Your task to perform on an android device: open app "Expedia: Hotels, Flights & Car" Image 0: 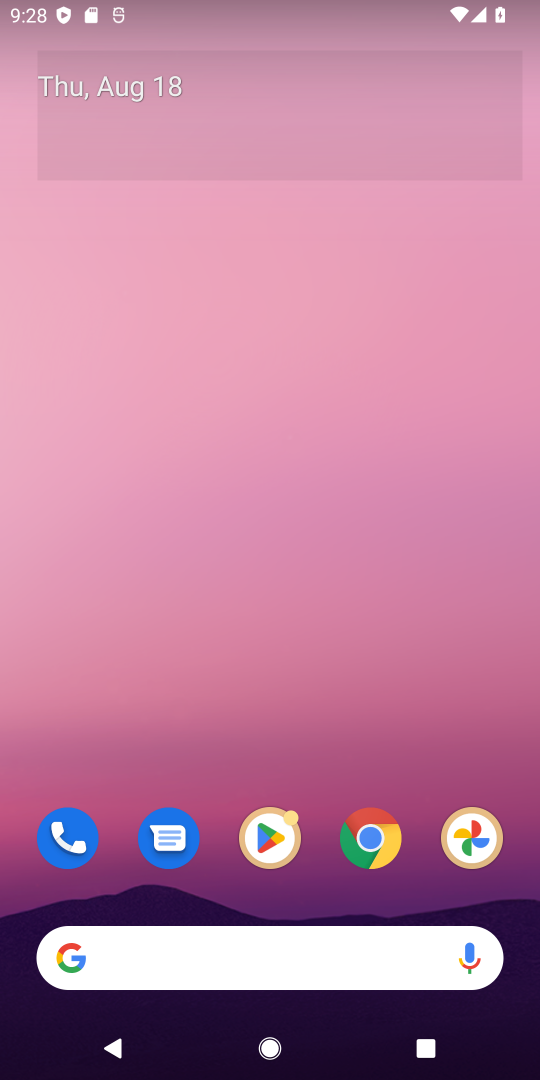
Step 0: click (261, 834)
Your task to perform on an android device: open app "Expedia: Hotels, Flights & Car" Image 1: 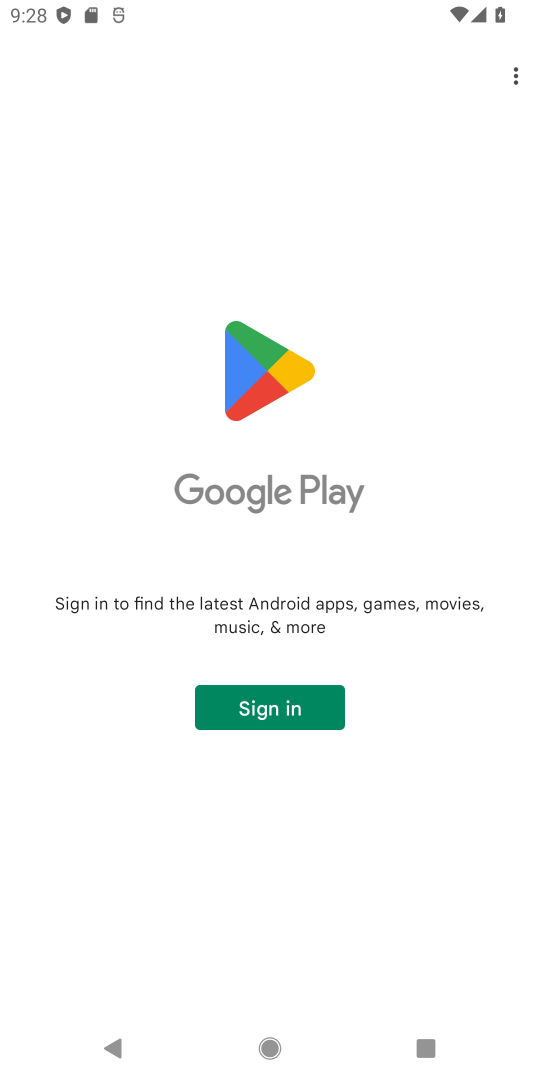
Step 1: click (254, 726)
Your task to perform on an android device: open app "Expedia: Hotels, Flights & Car" Image 2: 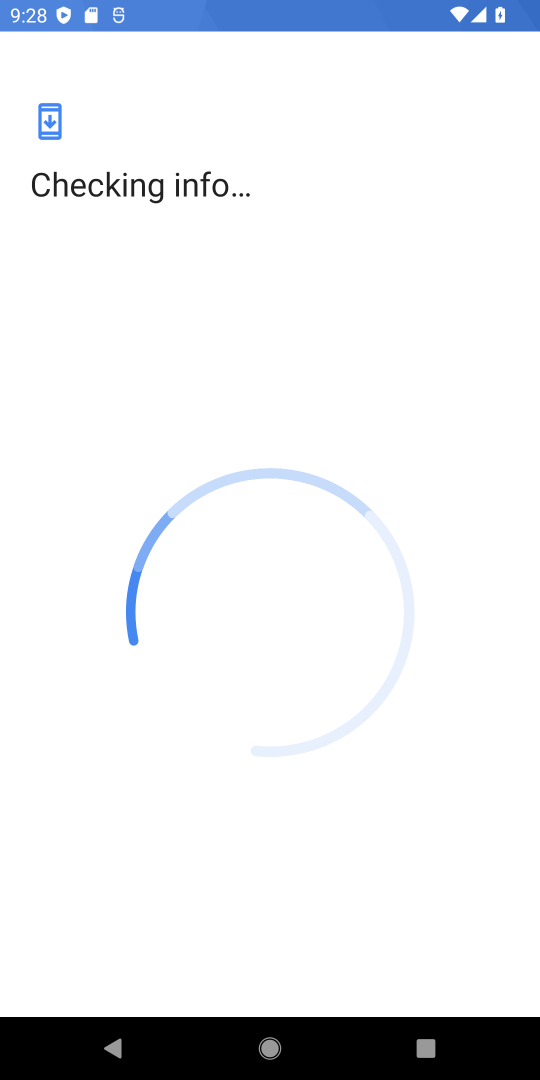
Step 2: press home button
Your task to perform on an android device: open app "Expedia: Hotels, Flights & Car" Image 3: 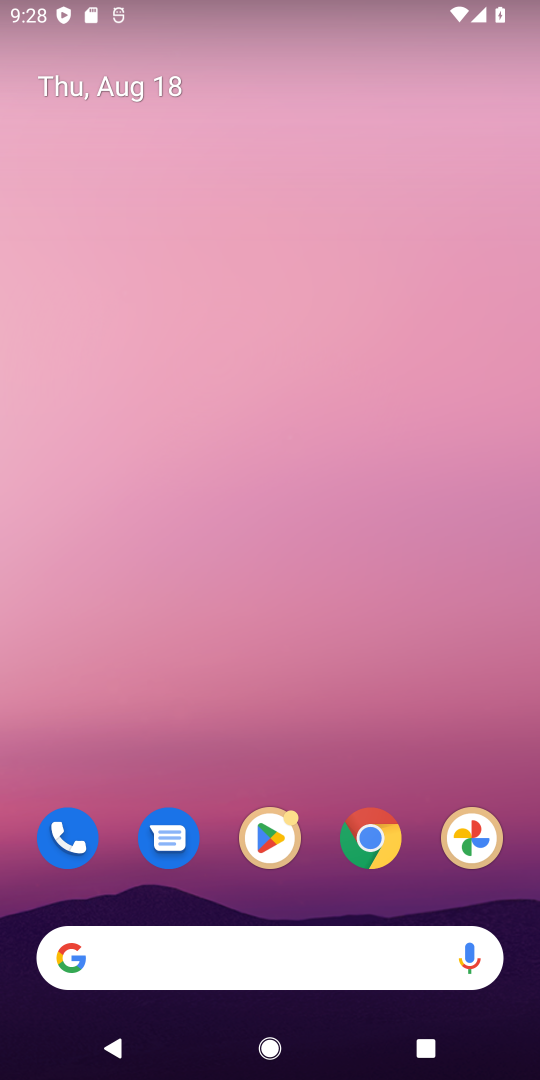
Step 3: click (353, 865)
Your task to perform on an android device: open app "Expedia: Hotels, Flights & Car" Image 4: 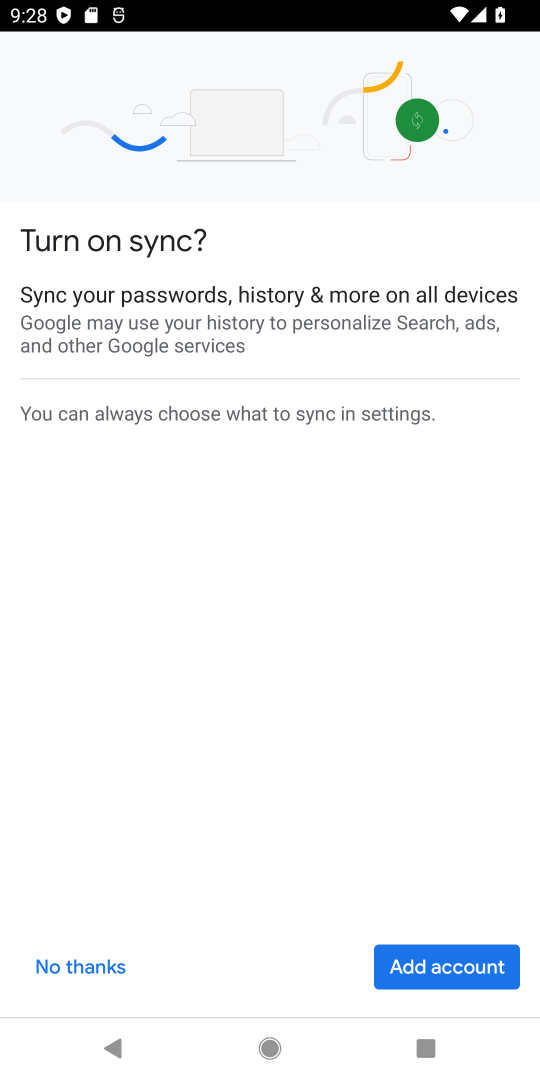
Step 4: click (103, 957)
Your task to perform on an android device: open app "Expedia: Hotels, Flights & Car" Image 5: 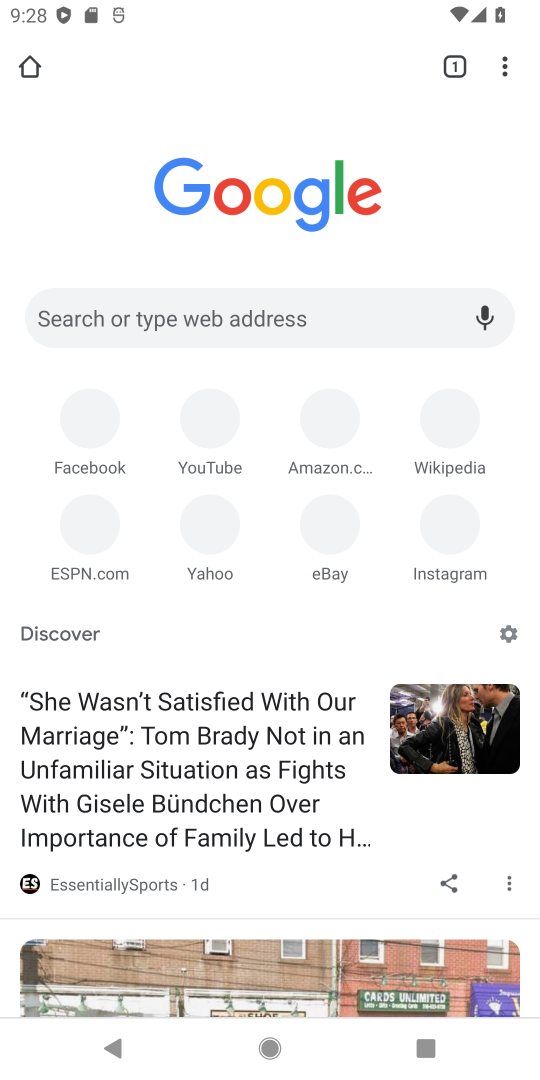
Step 5: click (252, 327)
Your task to perform on an android device: open app "Expedia: Hotels, Flights & Car" Image 6: 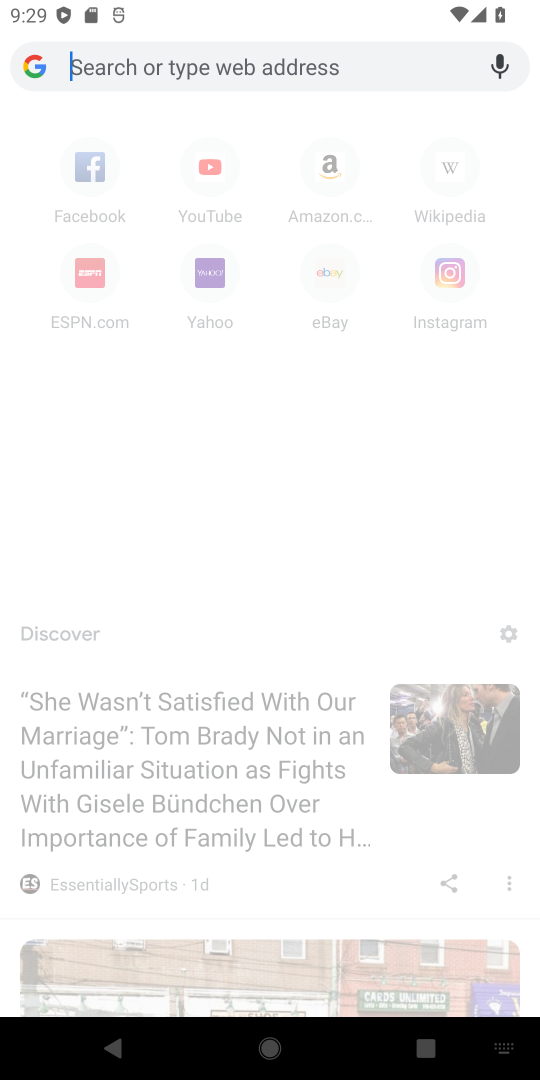
Step 6: type "expedia"
Your task to perform on an android device: open app "Expedia: Hotels, Flights & Car" Image 7: 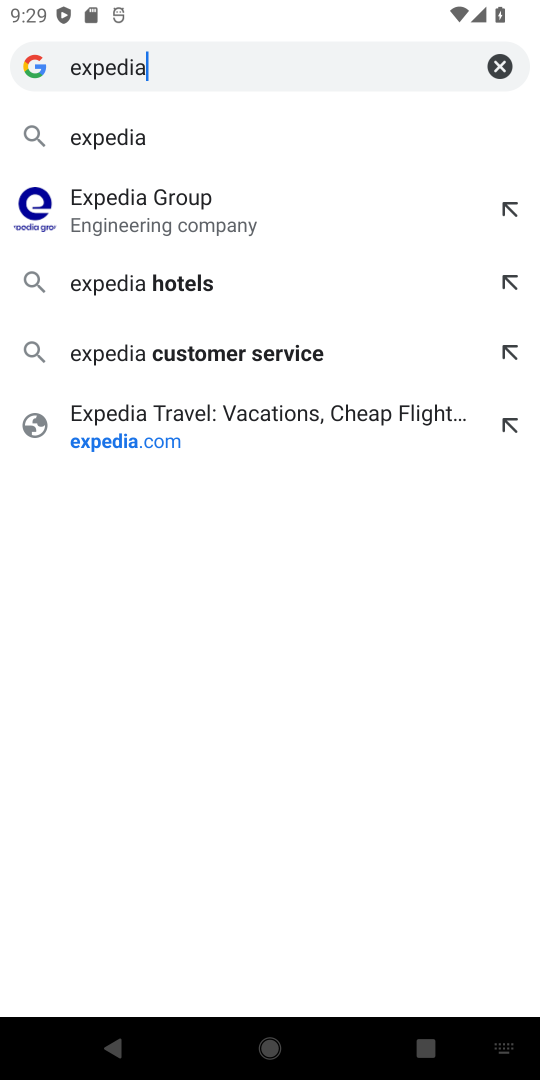
Step 7: click (285, 152)
Your task to perform on an android device: open app "Expedia: Hotels, Flights & Car" Image 8: 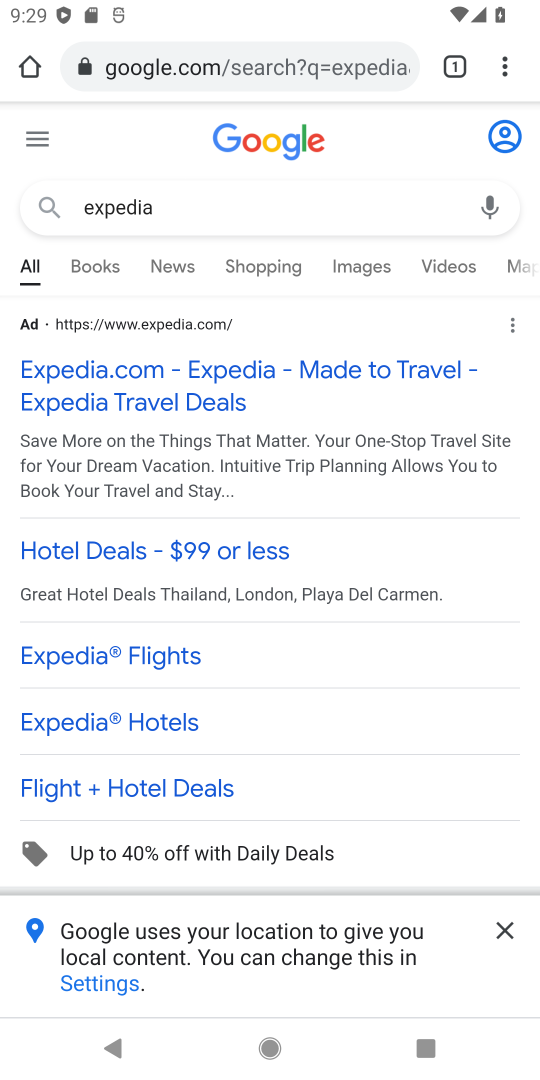
Step 8: drag from (320, 604) to (351, 218)
Your task to perform on an android device: open app "Expedia: Hotels, Flights & Car" Image 9: 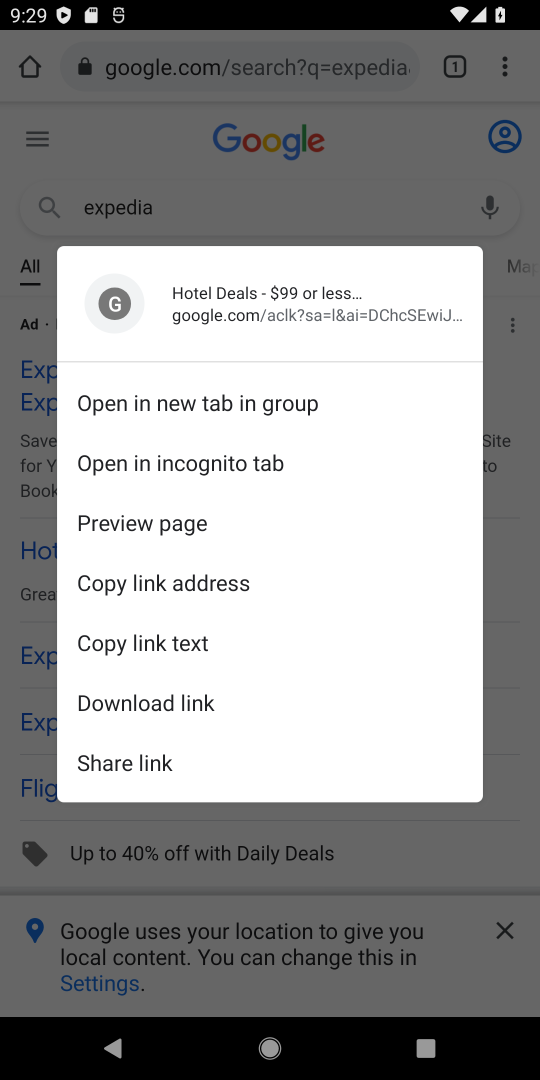
Step 9: click (273, 837)
Your task to perform on an android device: open app "Expedia: Hotels, Flights & Car" Image 10: 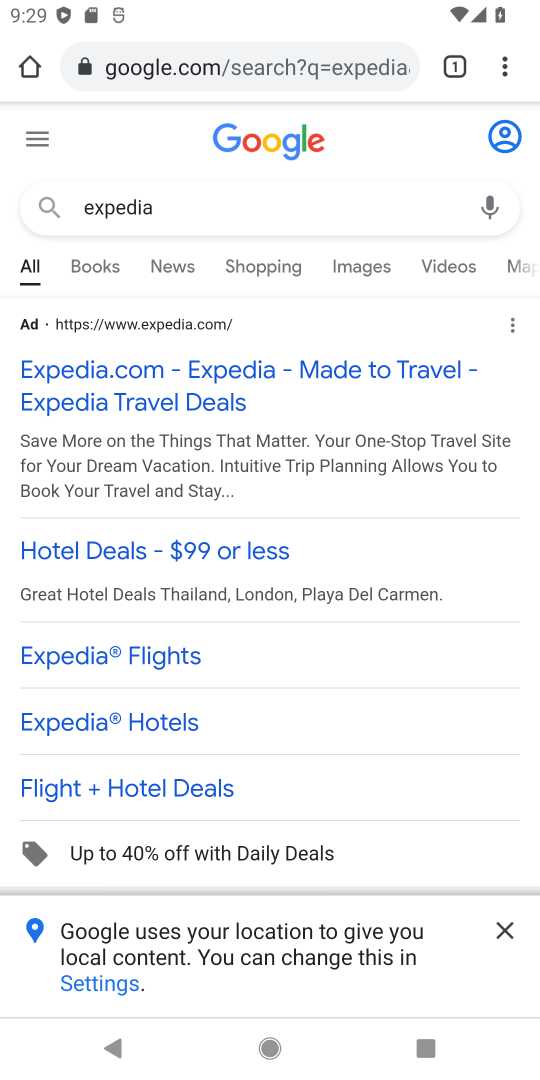
Step 10: drag from (273, 837) to (268, 318)
Your task to perform on an android device: open app "Expedia: Hotels, Flights & Car" Image 11: 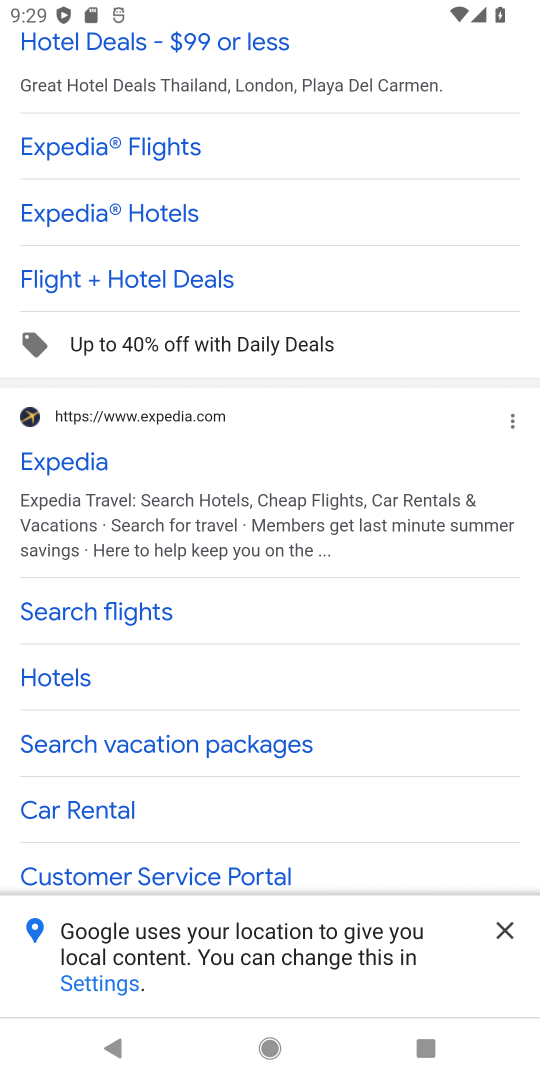
Step 11: drag from (274, 853) to (271, 296)
Your task to perform on an android device: open app "Expedia: Hotels, Flights & Car" Image 12: 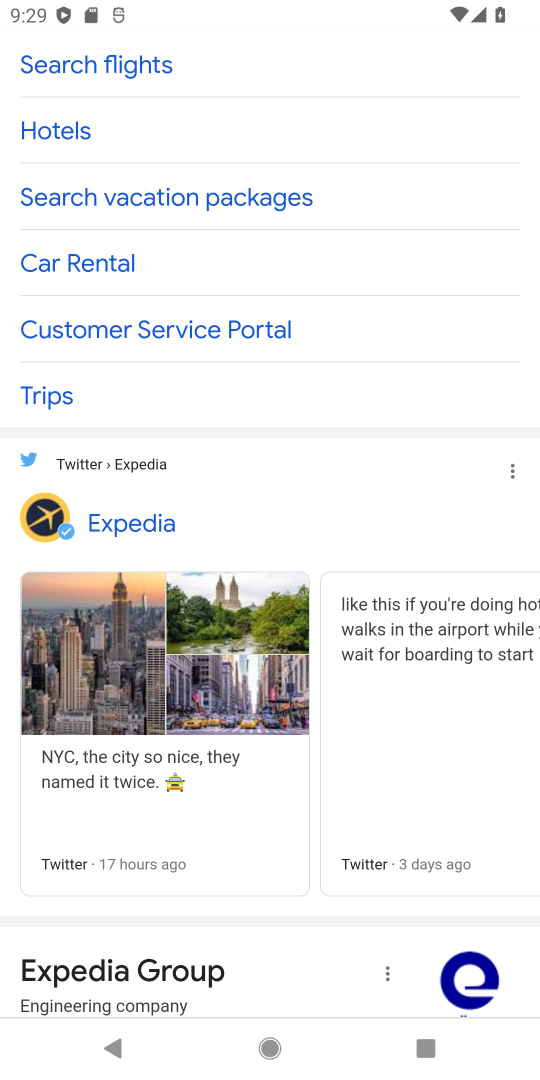
Step 12: drag from (305, 761) to (319, 305)
Your task to perform on an android device: open app "Expedia: Hotels, Flights & Car" Image 13: 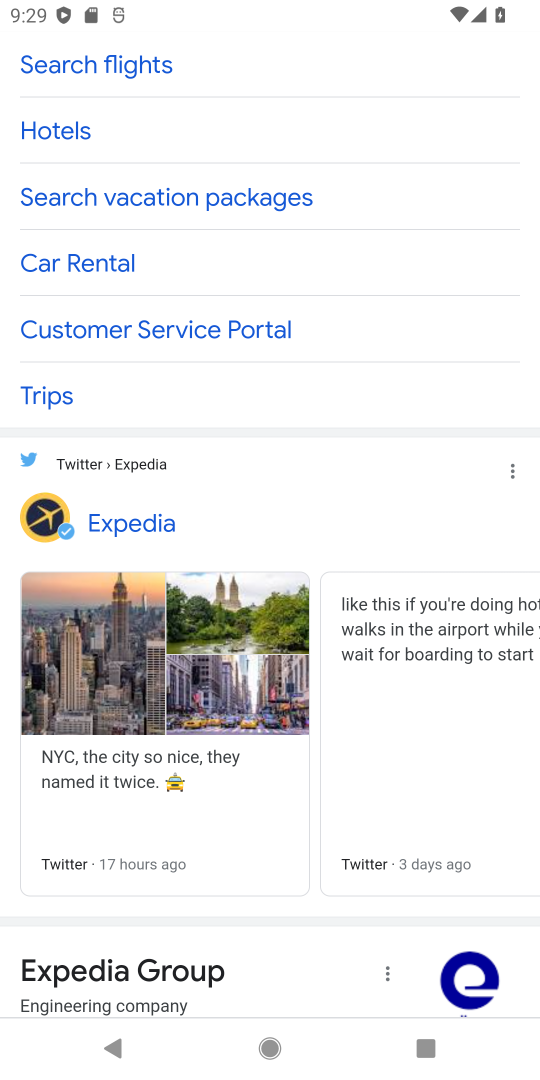
Step 13: drag from (354, 877) to (370, 423)
Your task to perform on an android device: open app "Expedia: Hotels, Flights & Car" Image 14: 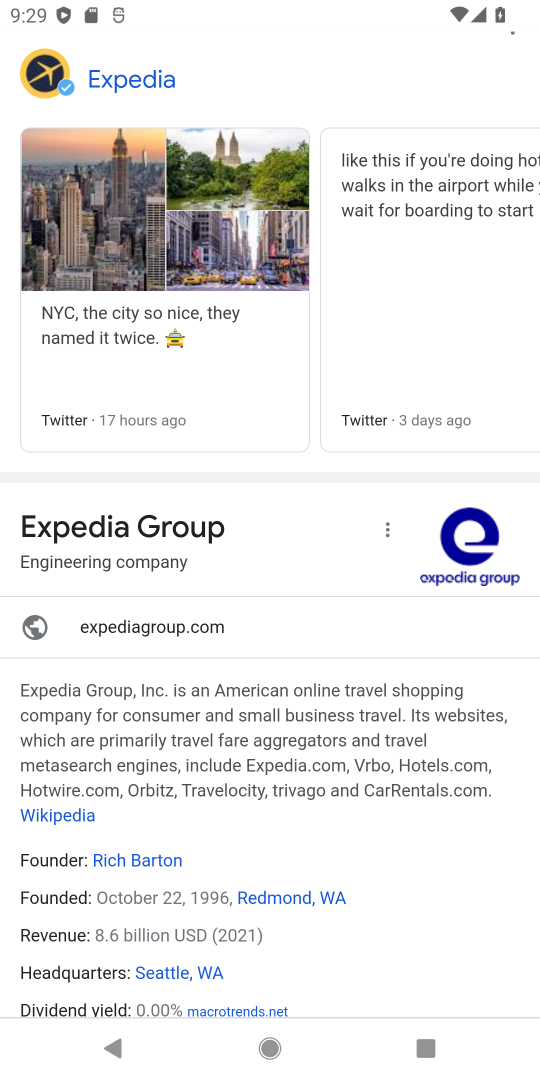
Step 14: drag from (401, 799) to (488, 176)
Your task to perform on an android device: open app "Expedia: Hotels, Flights & Car" Image 15: 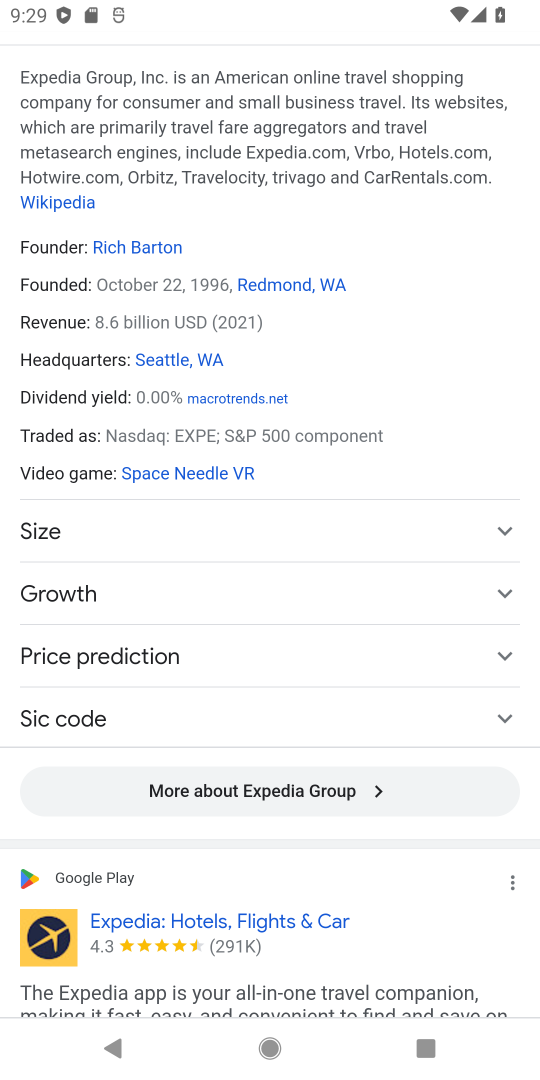
Step 15: drag from (483, 946) to (482, 613)
Your task to perform on an android device: open app "Expedia: Hotels, Flights & Car" Image 16: 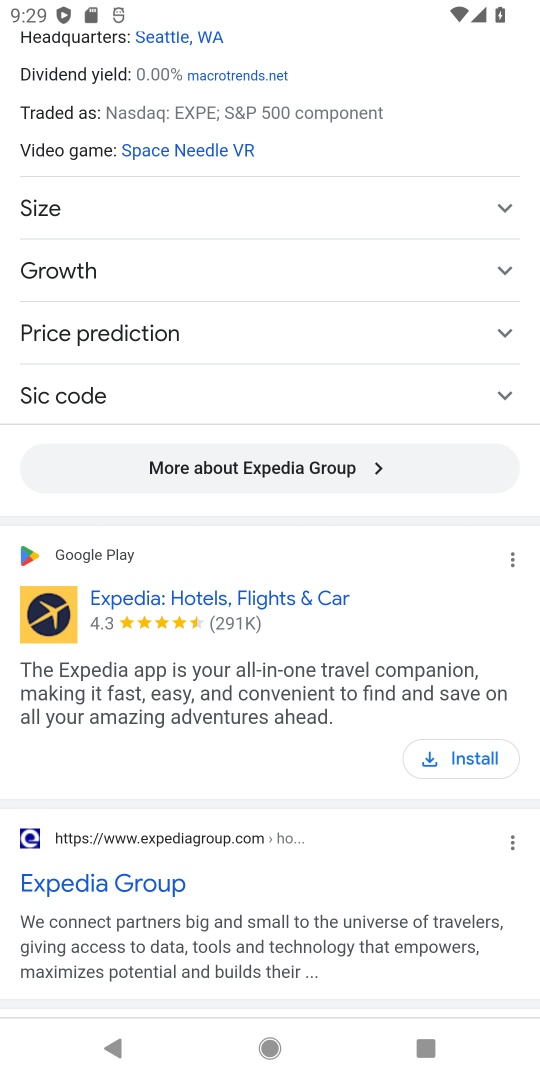
Step 16: click (486, 747)
Your task to perform on an android device: open app "Expedia: Hotels, Flights & Car" Image 17: 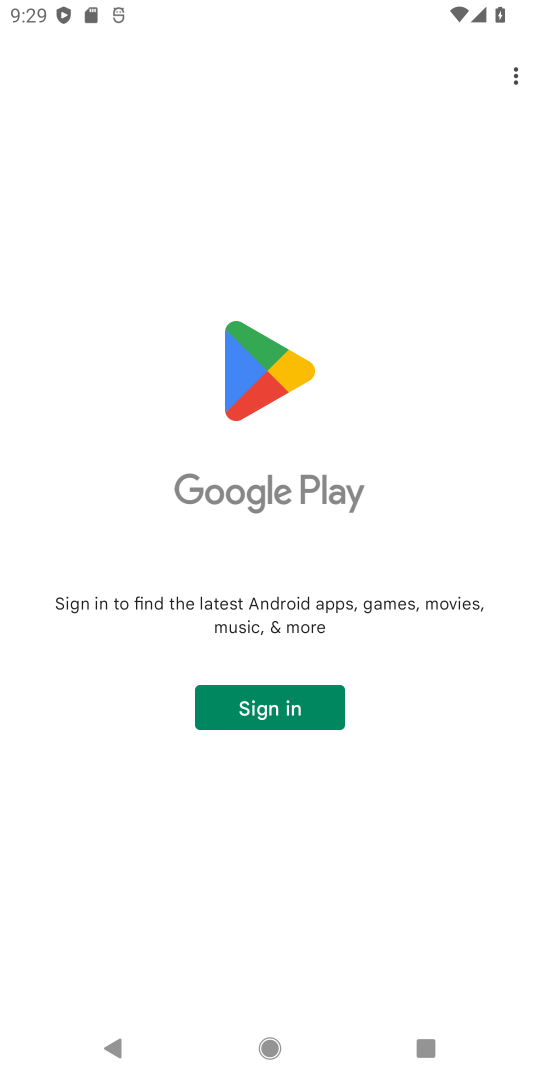
Step 17: click (272, 723)
Your task to perform on an android device: open app "Expedia: Hotels, Flights & Car" Image 18: 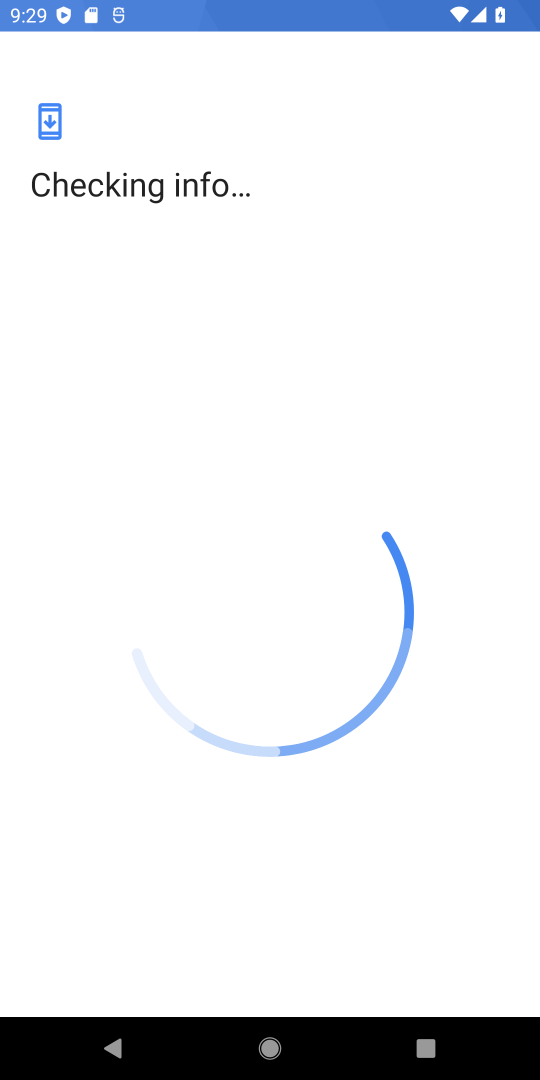
Step 18: task complete